Your task to perform on an android device: find photos in the google photos app Image 0: 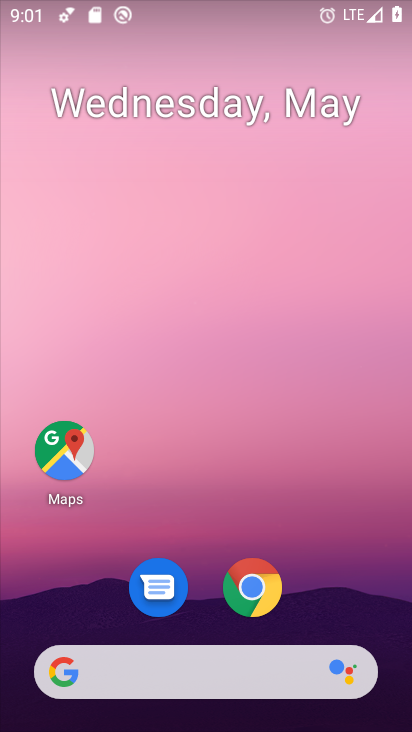
Step 0: drag from (200, 612) to (258, 96)
Your task to perform on an android device: find photos in the google photos app Image 1: 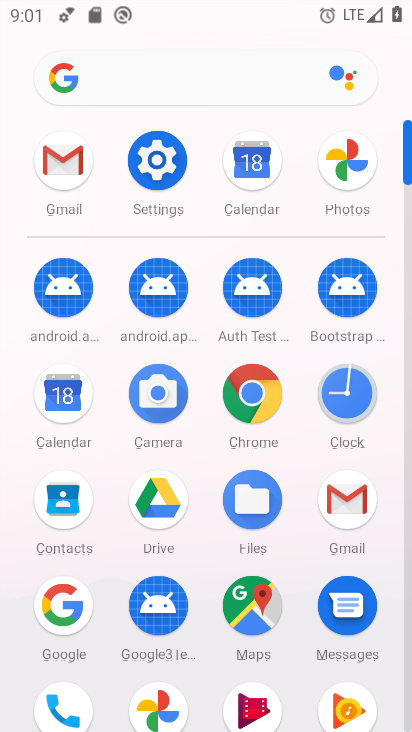
Step 1: click (160, 692)
Your task to perform on an android device: find photos in the google photos app Image 2: 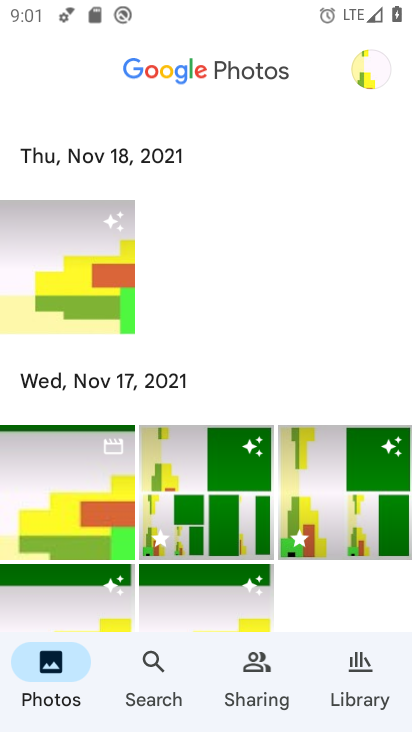
Step 2: task complete